Your task to perform on an android device: Show me popular games on the Play Store Image 0: 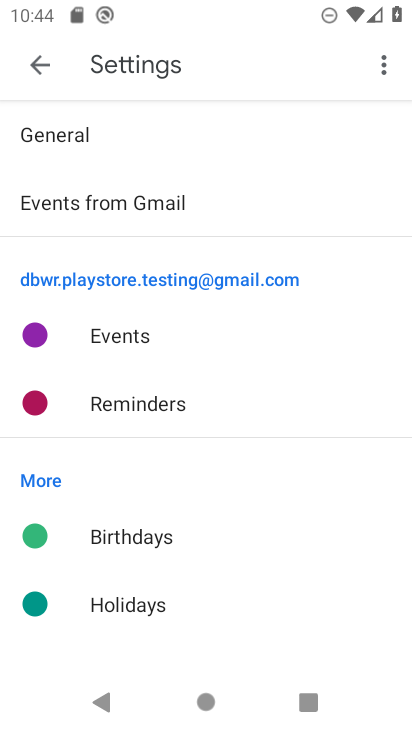
Step 0: press home button
Your task to perform on an android device: Show me popular games on the Play Store Image 1: 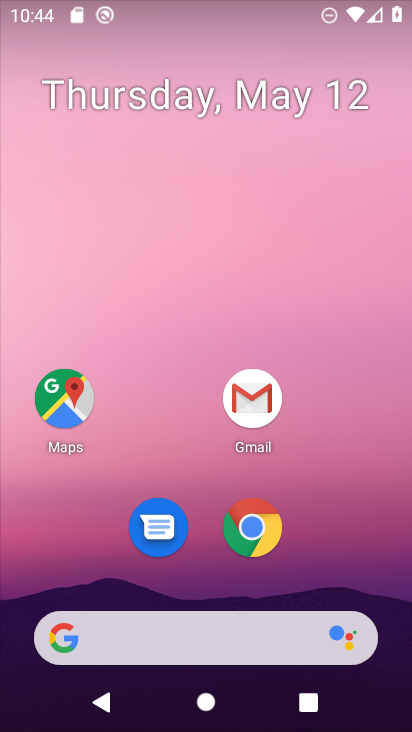
Step 1: drag from (380, 493) to (282, 190)
Your task to perform on an android device: Show me popular games on the Play Store Image 2: 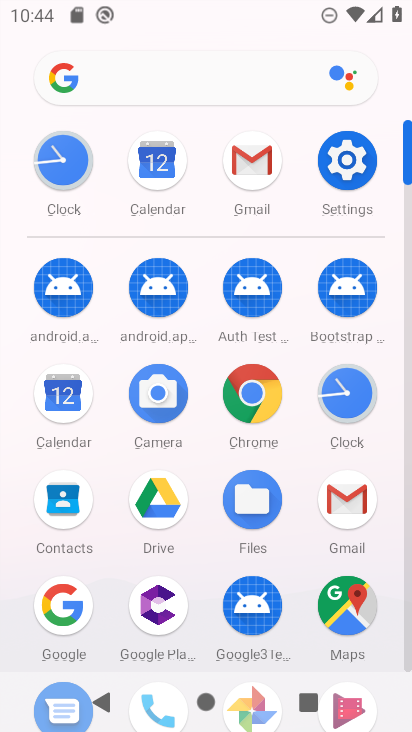
Step 2: click (411, 599)
Your task to perform on an android device: Show me popular games on the Play Store Image 3: 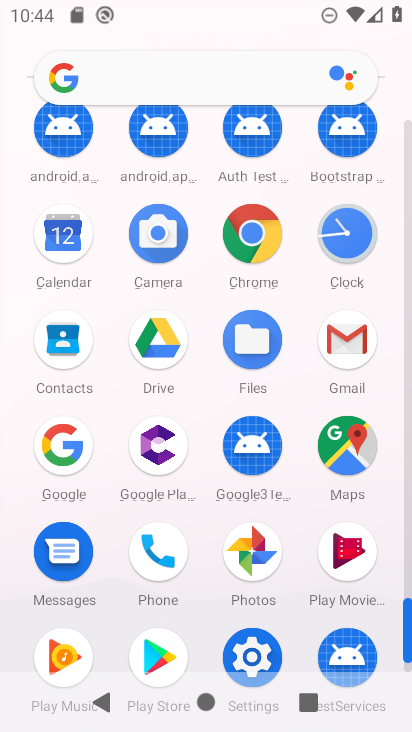
Step 3: click (149, 653)
Your task to perform on an android device: Show me popular games on the Play Store Image 4: 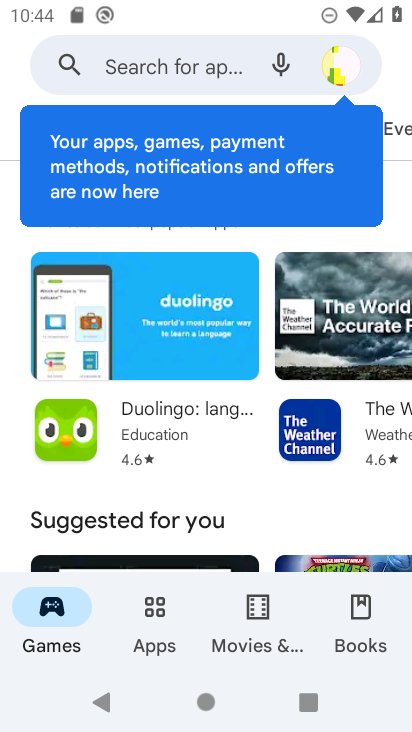
Step 4: task complete